Your task to perform on an android device: add a label to a message in the gmail app Image 0: 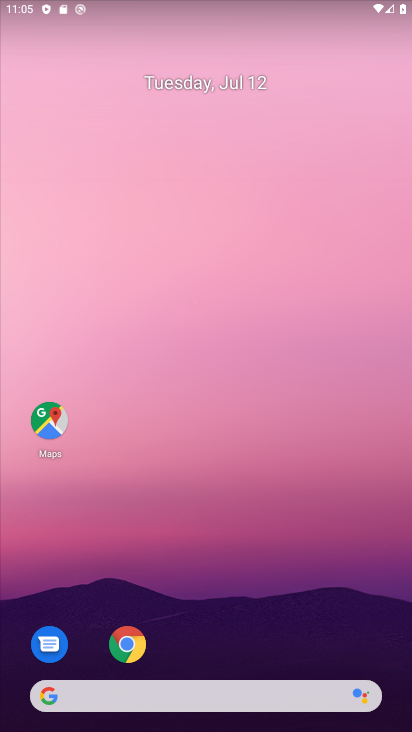
Step 0: drag from (225, 201) to (207, 105)
Your task to perform on an android device: add a label to a message in the gmail app Image 1: 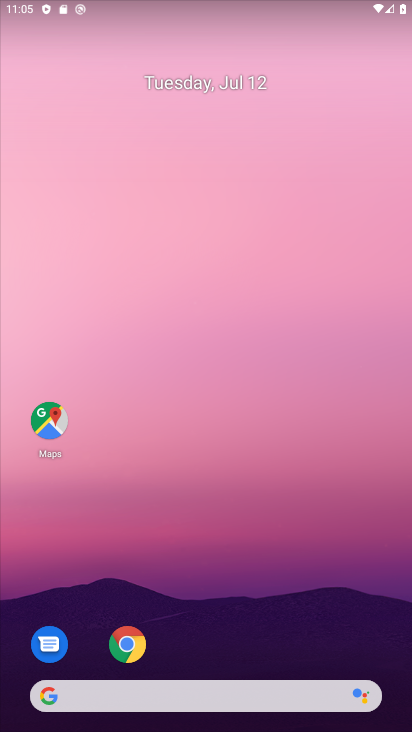
Step 1: drag from (219, 704) to (178, 0)
Your task to perform on an android device: add a label to a message in the gmail app Image 2: 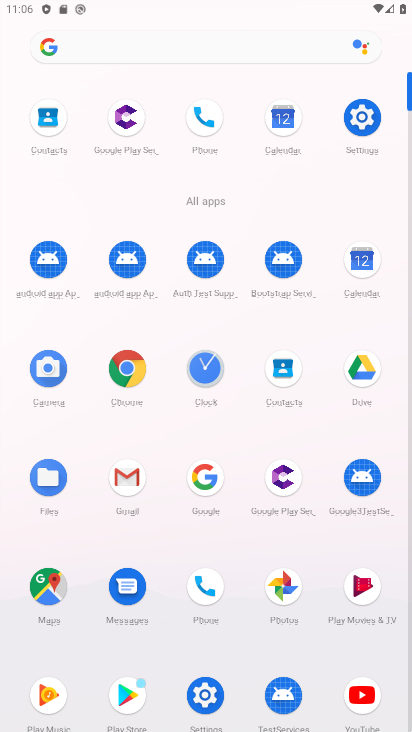
Step 2: drag from (130, 476) to (254, 656)
Your task to perform on an android device: add a label to a message in the gmail app Image 3: 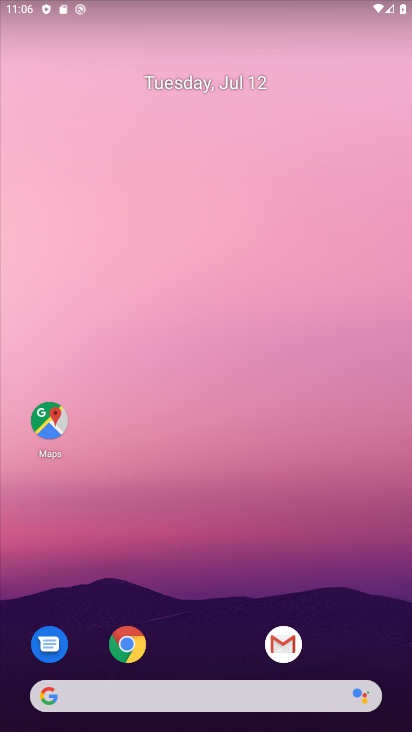
Step 3: click (296, 640)
Your task to perform on an android device: add a label to a message in the gmail app Image 4: 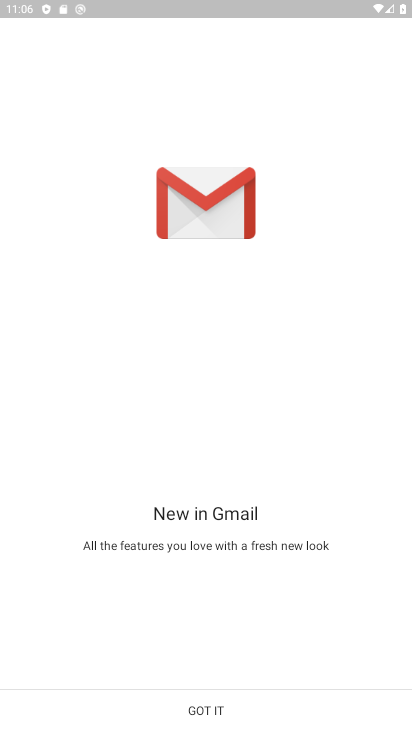
Step 4: click (218, 702)
Your task to perform on an android device: add a label to a message in the gmail app Image 5: 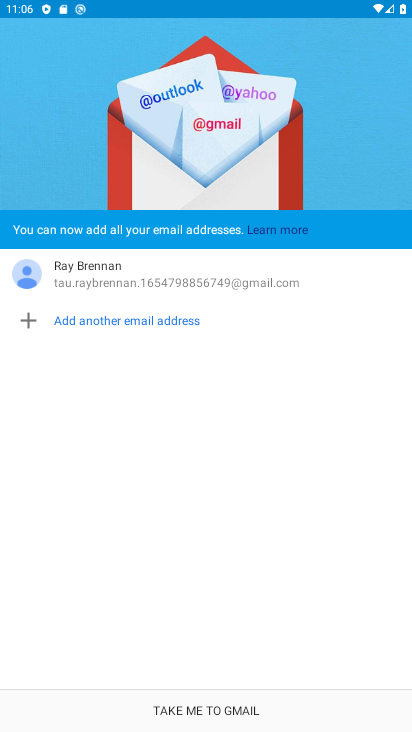
Step 5: click (218, 702)
Your task to perform on an android device: add a label to a message in the gmail app Image 6: 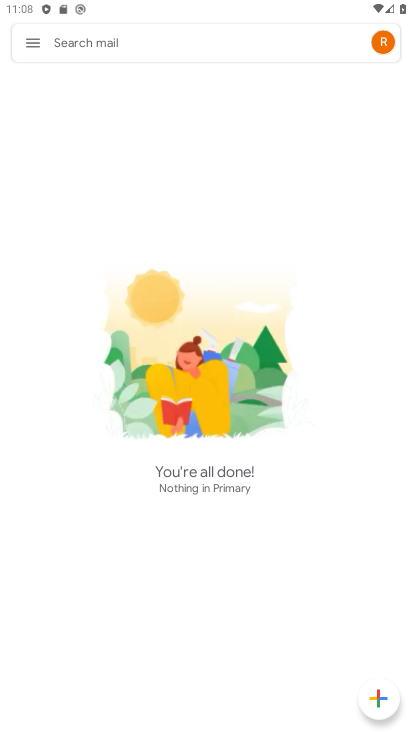
Step 6: task complete